Your task to perform on an android device: manage bookmarks in the chrome app Image 0: 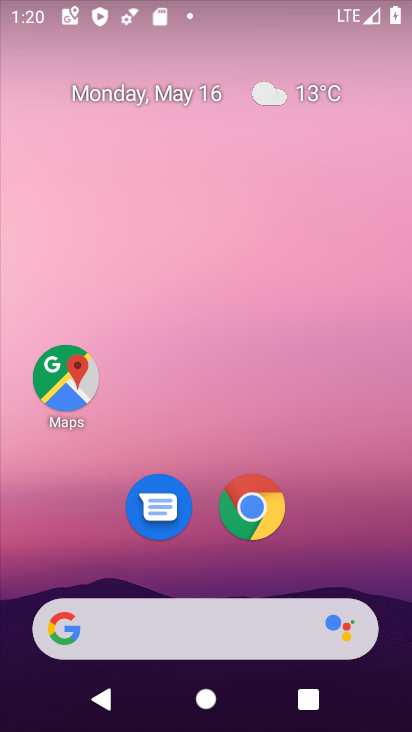
Step 0: click (262, 500)
Your task to perform on an android device: manage bookmarks in the chrome app Image 1: 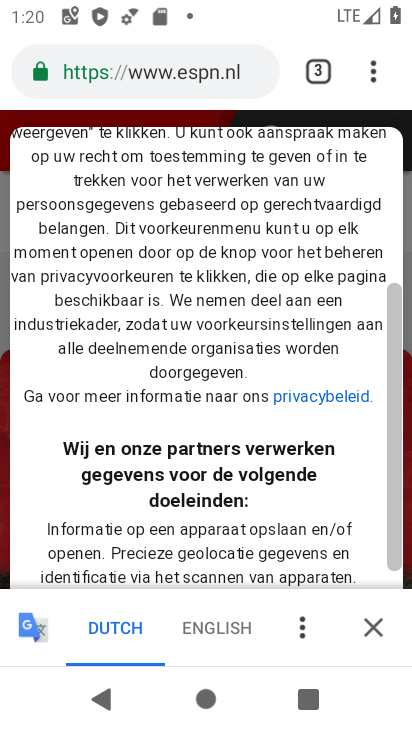
Step 1: click (372, 71)
Your task to perform on an android device: manage bookmarks in the chrome app Image 2: 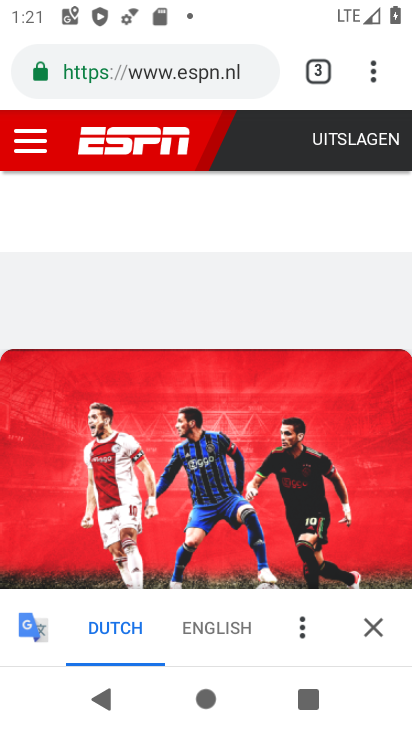
Step 2: click (373, 68)
Your task to perform on an android device: manage bookmarks in the chrome app Image 3: 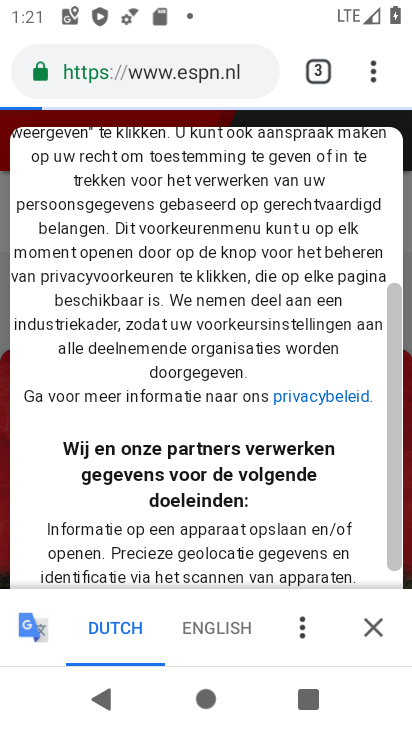
Step 3: click (374, 80)
Your task to perform on an android device: manage bookmarks in the chrome app Image 4: 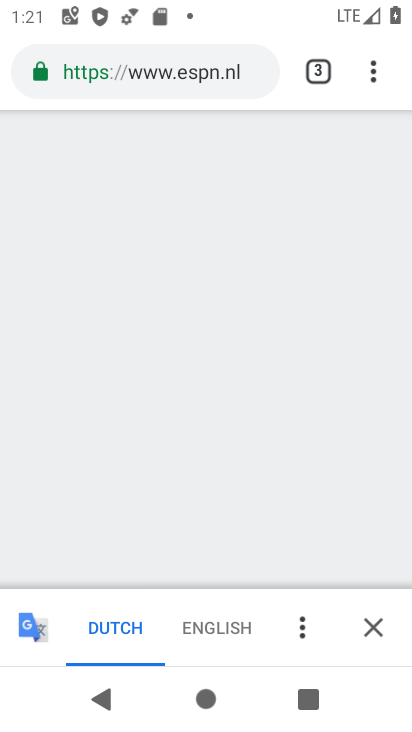
Step 4: click (372, 72)
Your task to perform on an android device: manage bookmarks in the chrome app Image 5: 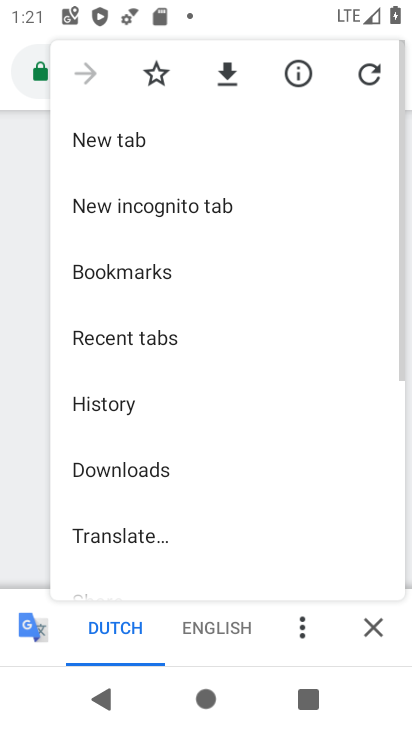
Step 5: click (125, 266)
Your task to perform on an android device: manage bookmarks in the chrome app Image 6: 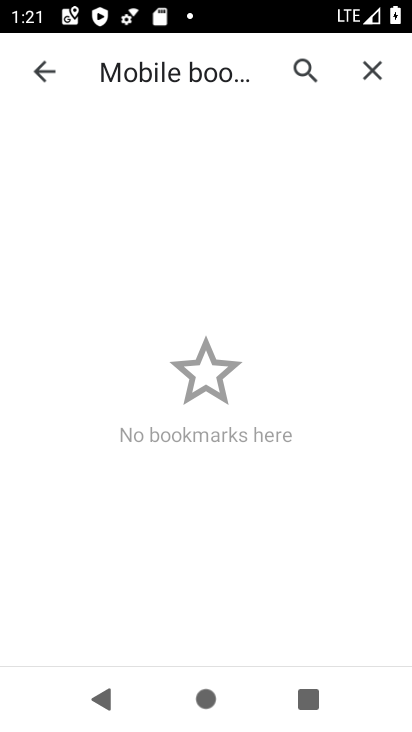
Step 6: task complete